Your task to perform on an android device: move a message to another label in the gmail app Image 0: 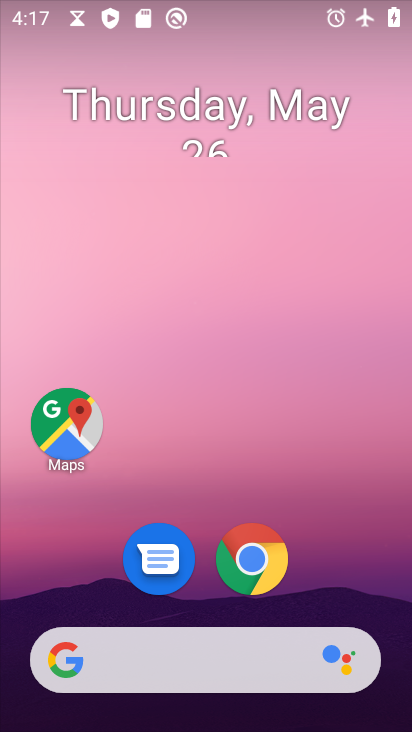
Step 0: press home button
Your task to perform on an android device: move a message to another label in the gmail app Image 1: 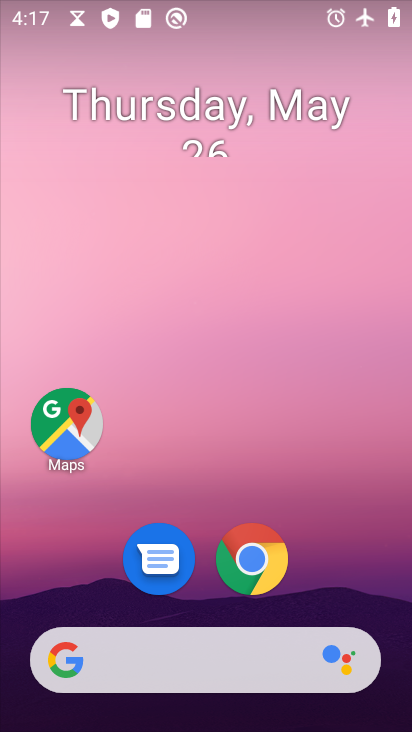
Step 1: drag from (238, 226) to (166, 25)
Your task to perform on an android device: move a message to another label in the gmail app Image 2: 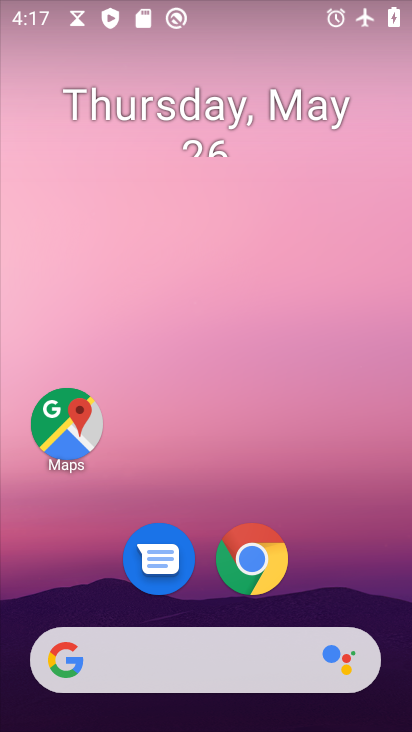
Step 2: drag from (313, 473) to (264, 35)
Your task to perform on an android device: move a message to another label in the gmail app Image 3: 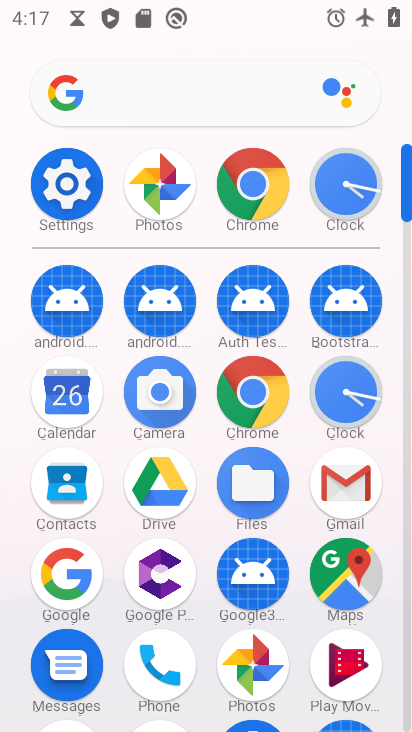
Step 3: click (338, 480)
Your task to perform on an android device: move a message to another label in the gmail app Image 4: 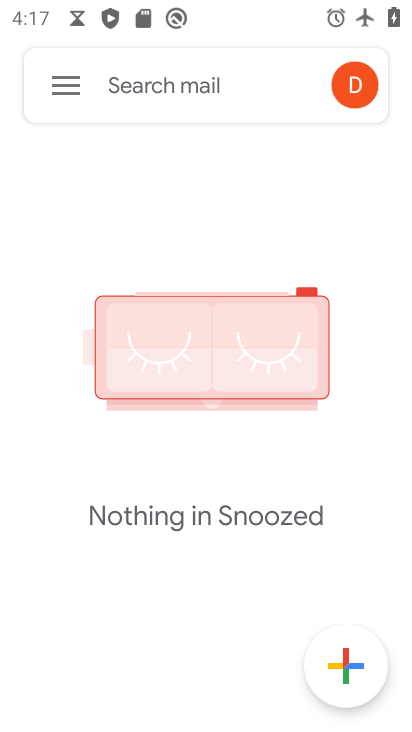
Step 4: click (64, 78)
Your task to perform on an android device: move a message to another label in the gmail app Image 5: 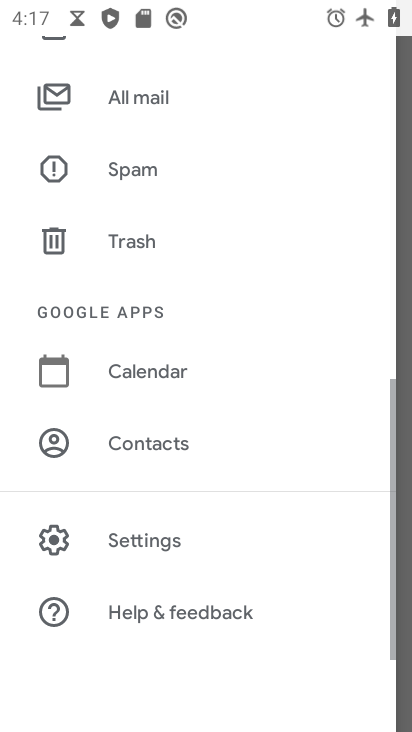
Step 5: drag from (218, 128) to (232, 731)
Your task to perform on an android device: move a message to another label in the gmail app Image 6: 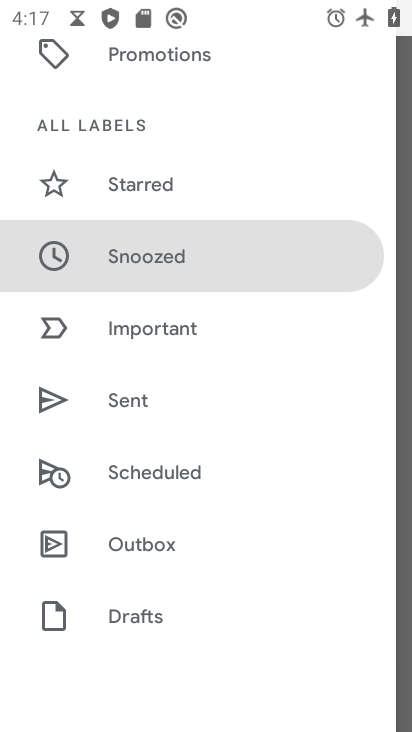
Step 6: drag from (244, 129) to (206, 692)
Your task to perform on an android device: move a message to another label in the gmail app Image 7: 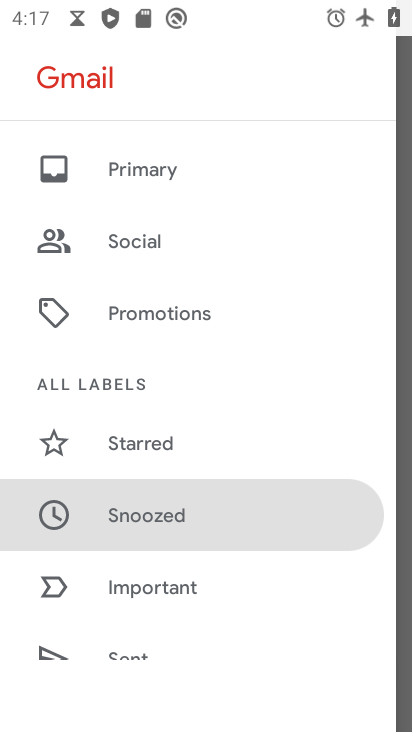
Step 7: click (157, 160)
Your task to perform on an android device: move a message to another label in the gmail app Image 8: 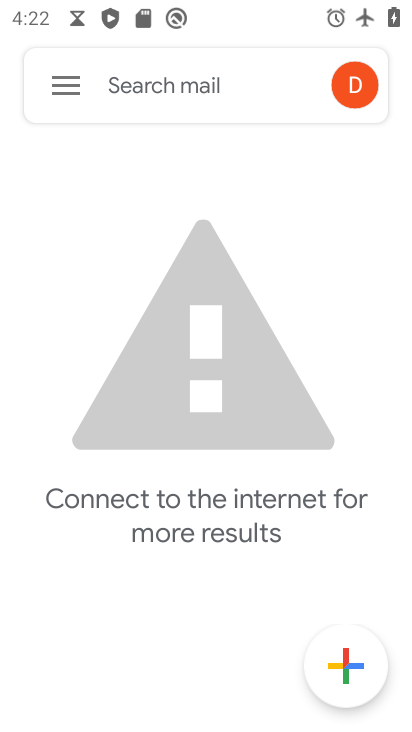
Step 8: task complete